Your task to perform on an android device: change your default location settings in chrome Image 0: 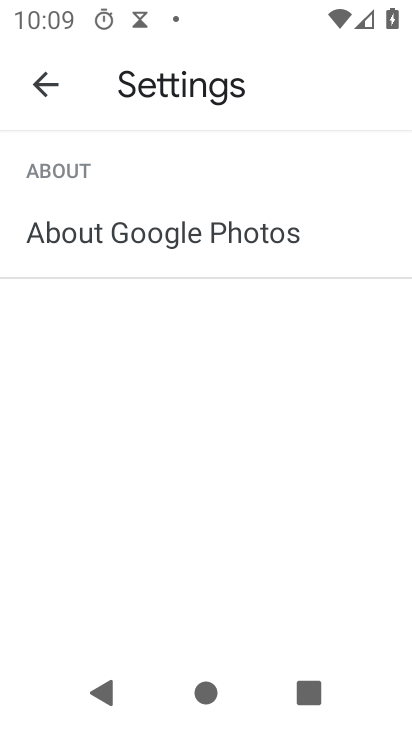
Step 0: press home button
Your task to perform on an android device: change your default location settings in chrome Image 1: 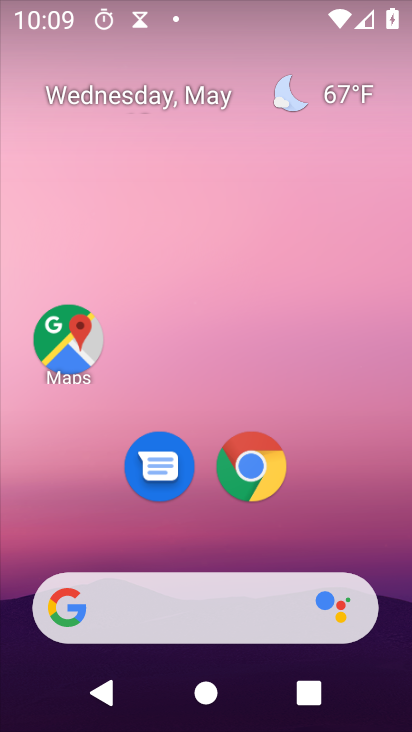
Step 1: drag from (273, 557) to (293, 142)
Your task to perform on an android device: change your default location settings in chrome Image 2: 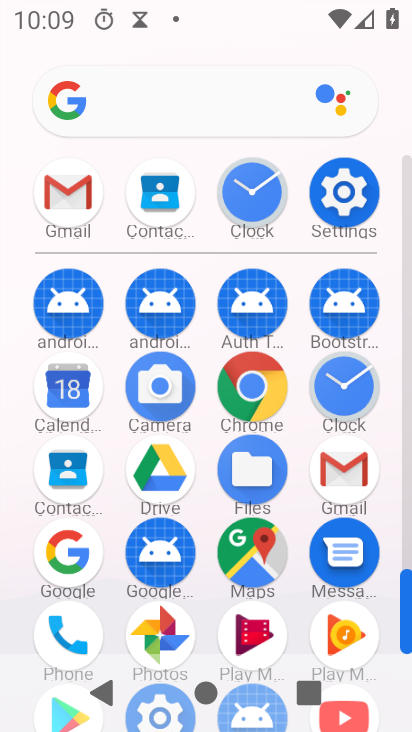
Step 2: click (253, 405)
Your task to perform on an android device: change your default location settings in chrome Image 3: 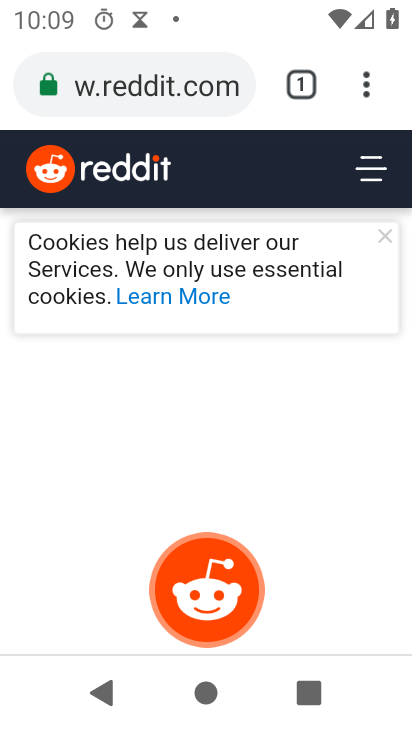
Step 3: click (365, 99)
Your task to perform on an android device: change your default location settings in chrome Image 4: 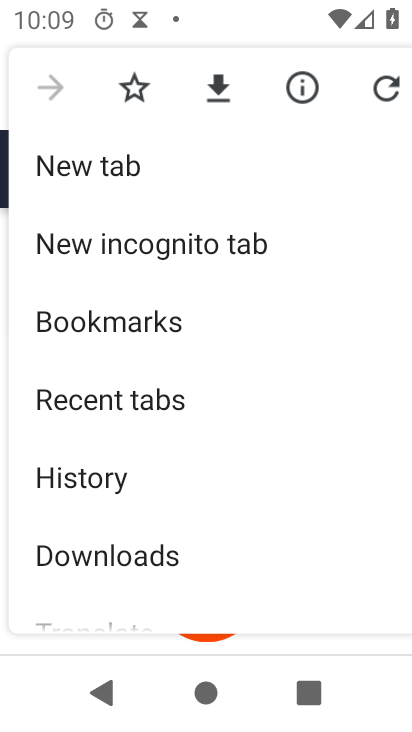
Step 4: drag from (199, 536) to (249, 372)
Your task to perform on an android device: change your default location settings in chrome Image 5: 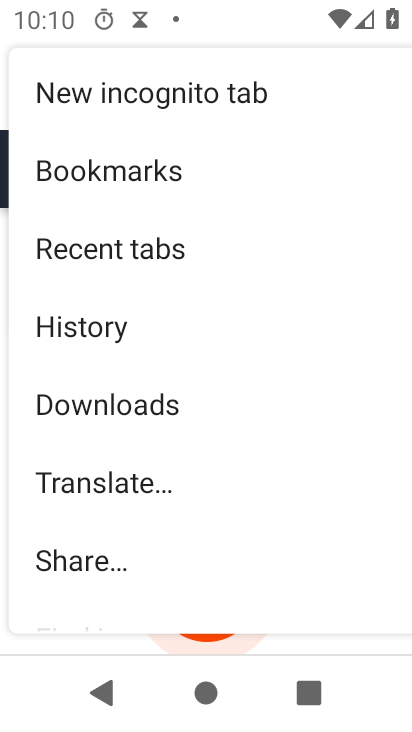
Step 5: drag from (154, 284) to (130, 493)
Your task to perform on an android device: change your default location settings in chrome Image 6: 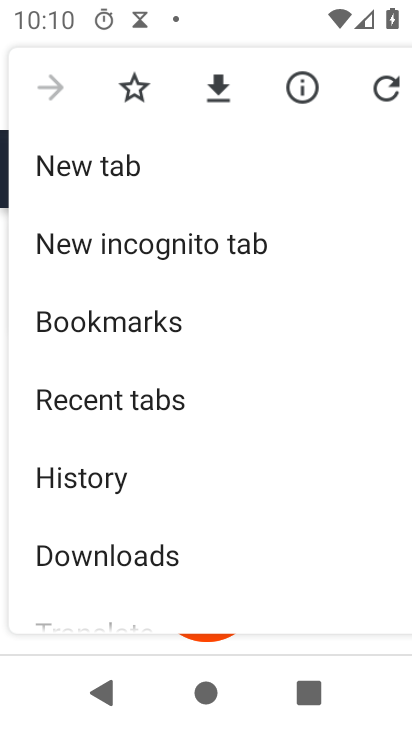
Step 6: drag from (137, 523) to (171, 185)
Your task to perform on an android device: change your default location settings in chrome Image 7: 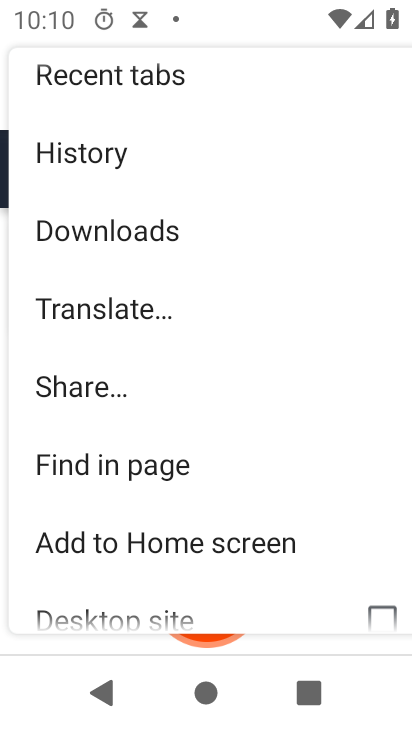
Step 7: drag from (105, 522) to (180, 221)
Your task to perform on an android device: change your default location settings in chrome Image 8: 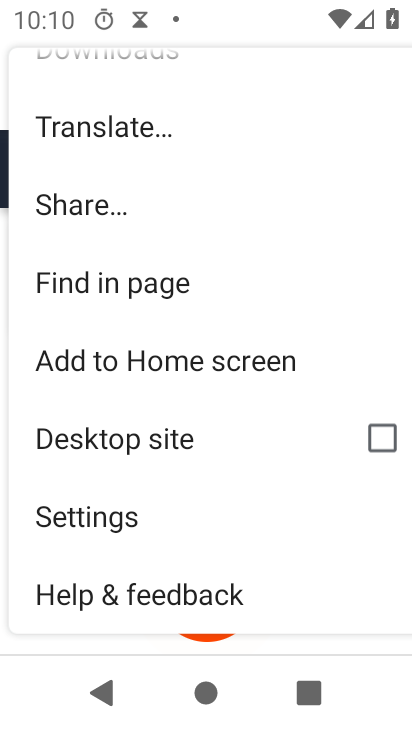
Step 8: click (90, 532)
Your task to perform on an android device: change your default location settings in chrome Image 9: 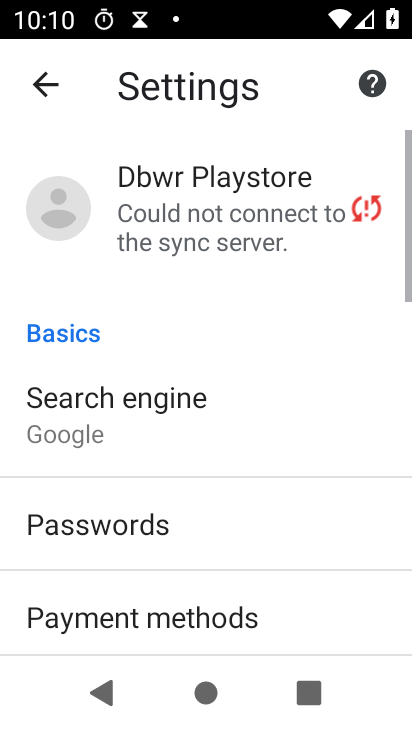
Step 9: drag from (154, 455) to (189, 248)
Your task to perform on an android device: change your default location settings in chrome Image 10: 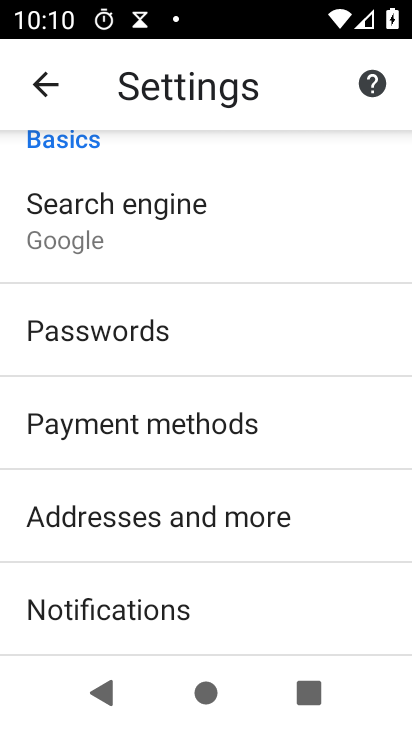
Step 10: drag from (158, 602) to (215, 161)
Your task to perform on an android device: change your default location settings in chrome Image 11: 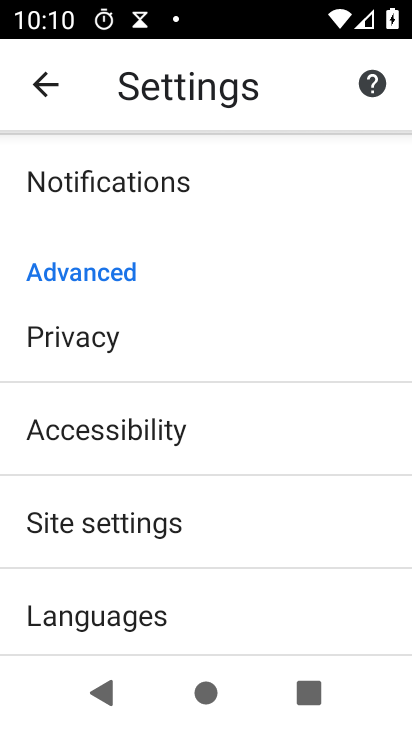
Step 11: drag from (122, 400) to (150, 229)
Your task to perform on an android device: change your default location settings in chrome Image 12: 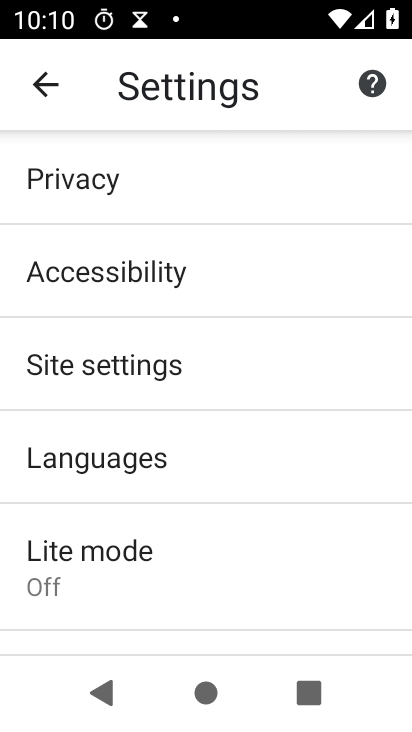
Step 12: click (101, 376)
Your task to perform on an android device: change your default location settings in chrome Image 13: 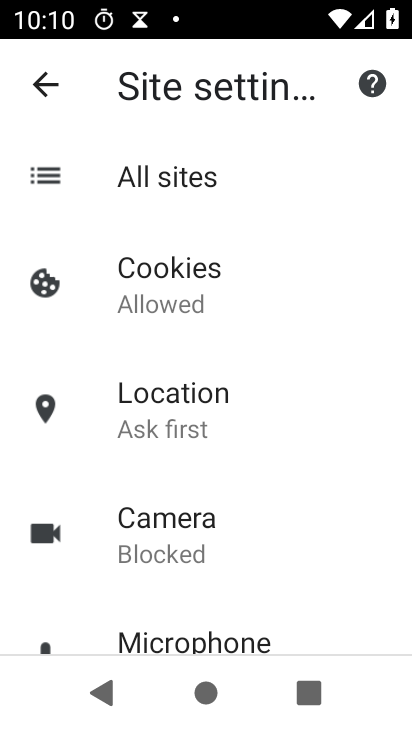
Step 13: click (141, 408)
Your task to perform on an android device: change your default location settings in chrome Image 14: 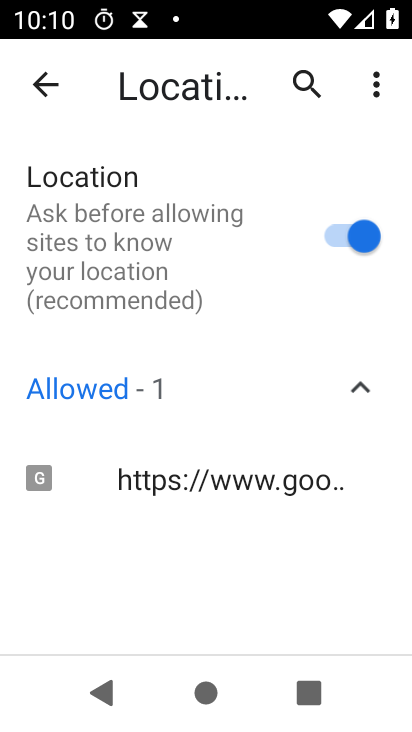
Step 14: click (320, 245)
Your task to perform on an android device: change your default location settings in chrome Image 15: 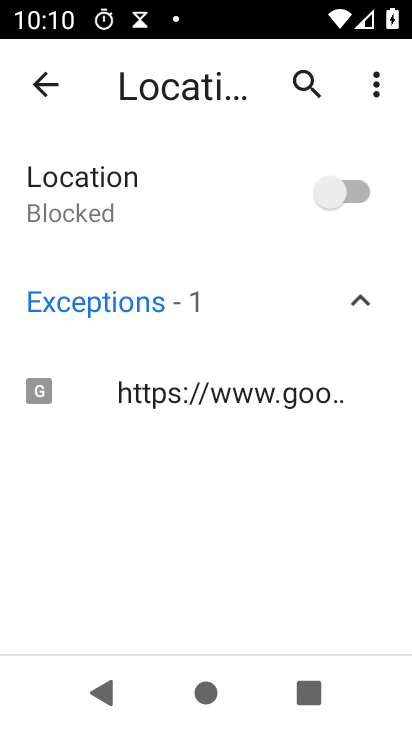
Step 15: task complete